Your task to perform on an android device: Open the stopwatch Image 0: 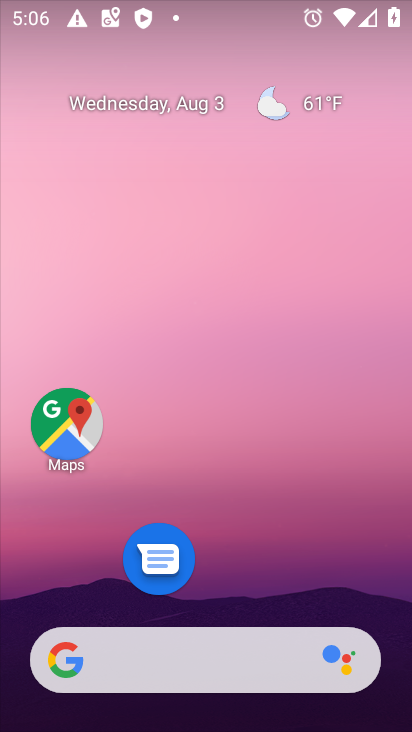
Step 0: drag from (237, 633) to (221, 233)
Your task to perform on an android device: Open the stopwatch Image 1: 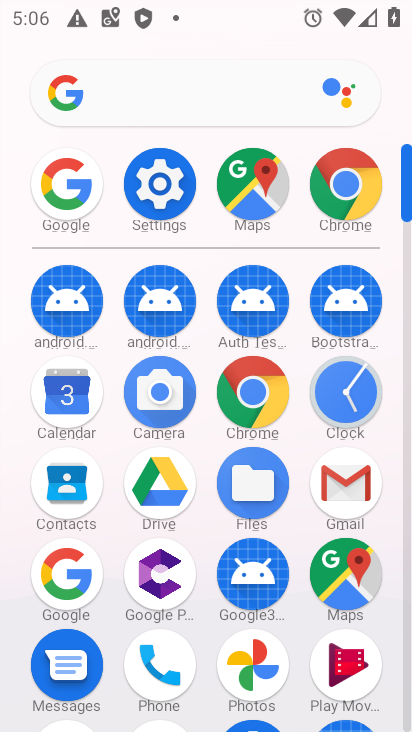
Step 1: click (356, 416)
Your task to perform on an android device: Open the stopwatch Image 2: 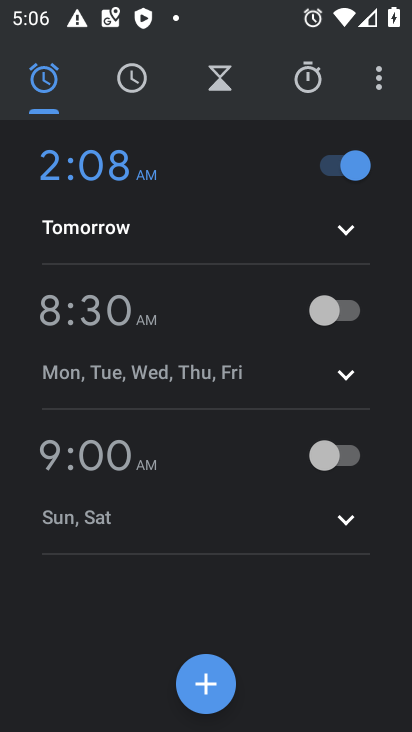
Step 2: click (303, 85)
Your task to perform on an android device: Open the stopwatch Image 3: 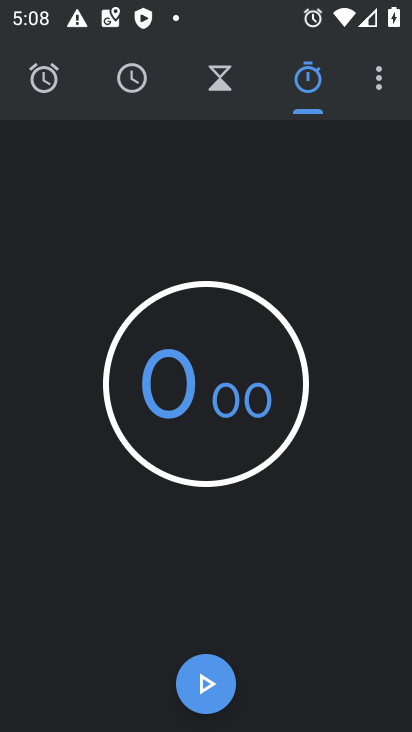
Step 3: task complete